Your task to perform on an android device: turn off sleep mode Image 0: 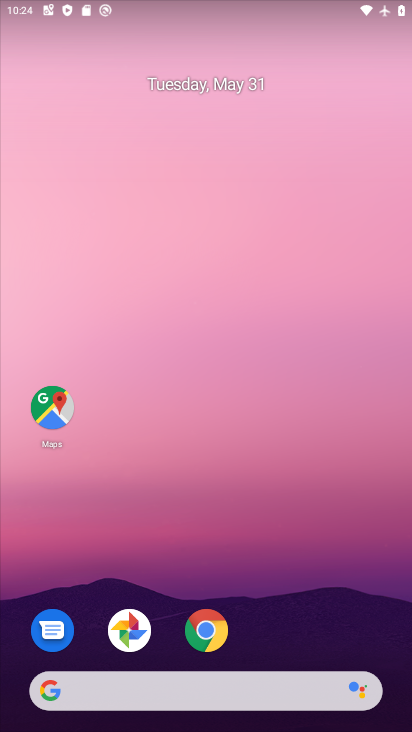
Step 0: drag from (341, 612) to (280, 90)
Your task to perform on an android device: turn off sleep mode Image 1: 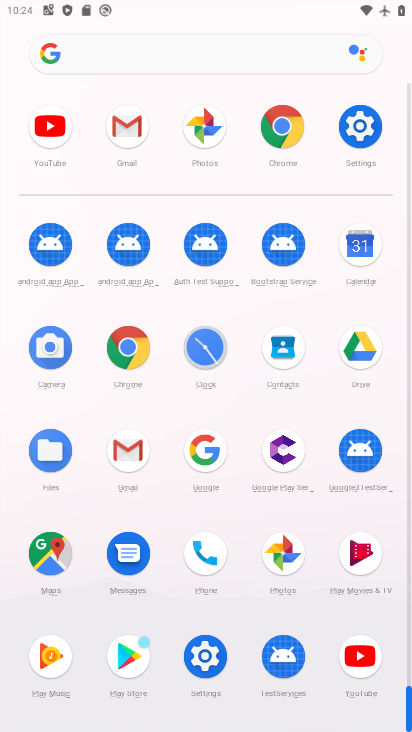
Step 1: click (347, 126)
Your task to perform on an android device: turn off sleep mode Image 2: 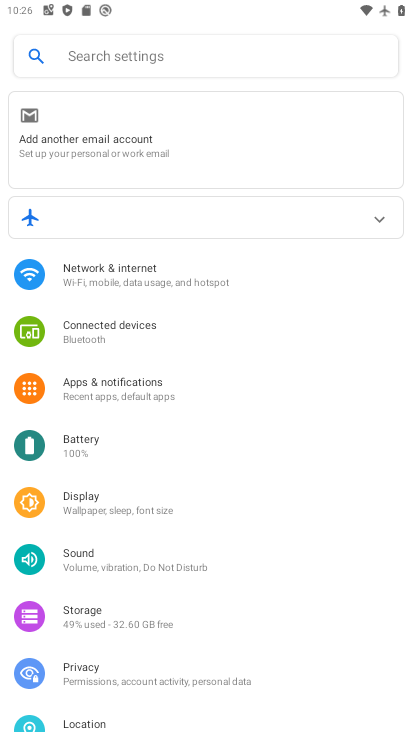
Step 2: task complete